Your task to perform on an android device: See recent photos Image 0: 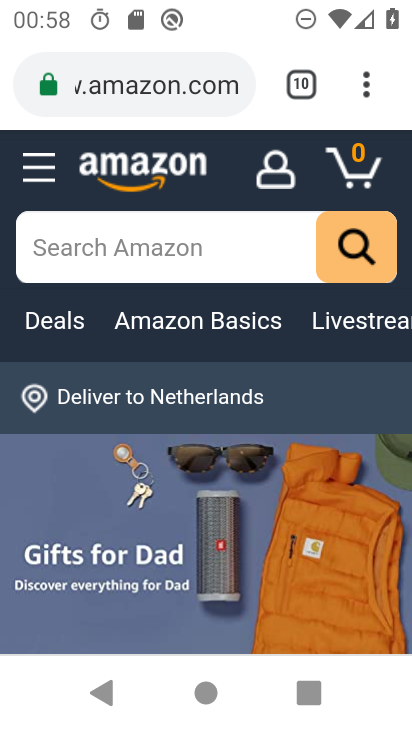
Step 0: press home button
Your task to perform on an android device: See recent photos Image 1: 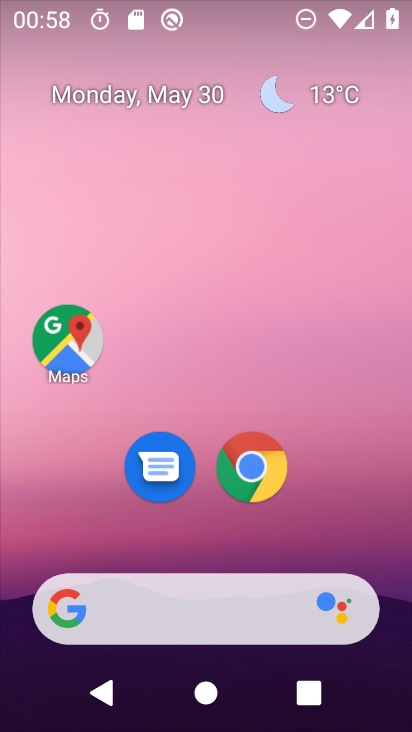
Step 1: drag from (207, 557) to (164, 235)
Your task to perform on an android device: See recent photos Image 2: 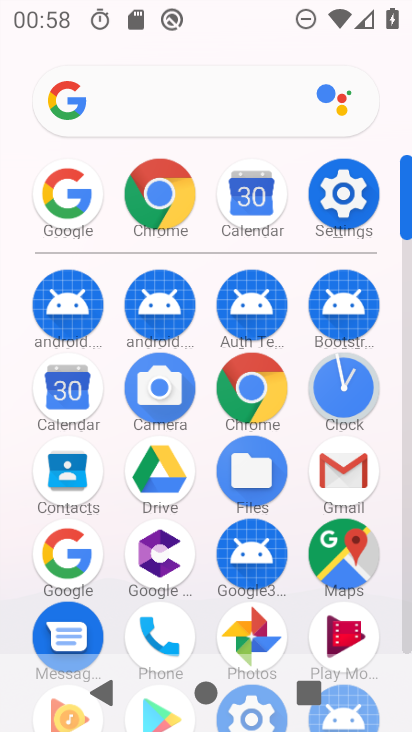
Step 2: click (234, 627)
Your task to perform on an android device: See recent photos Image 3: 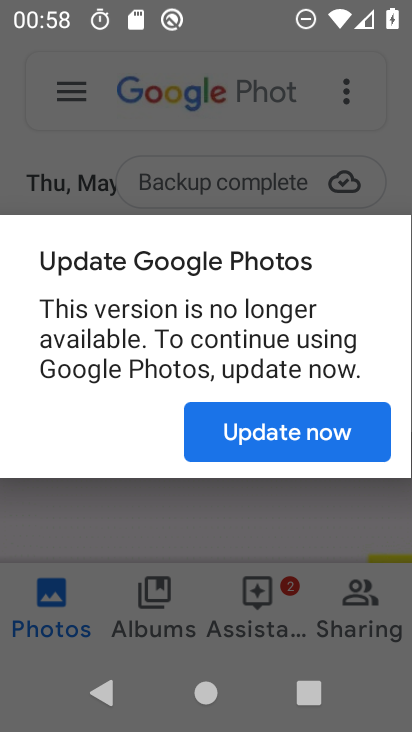
Step 3: click (263, 436)
Your task to perform on an android device: See recent photos Image 4: 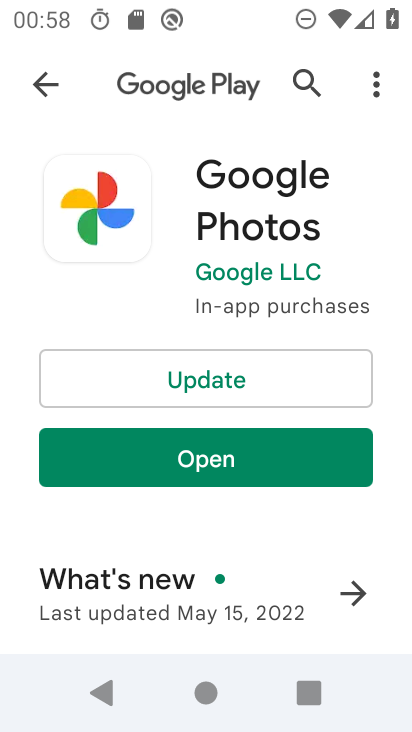
Step 4: click (206, 464)
Your task to perform on an android device: See recent photos Image 5: 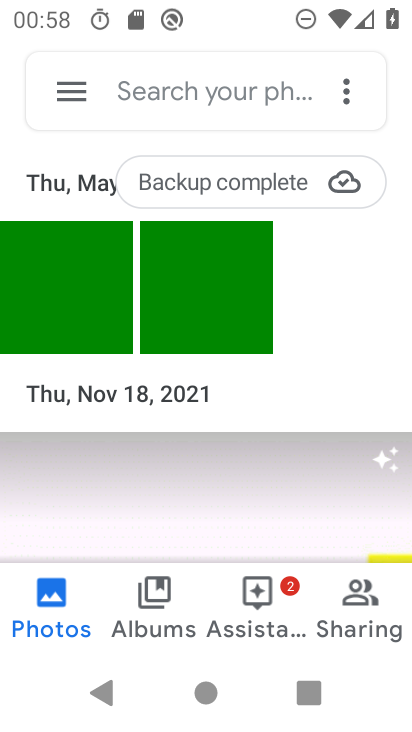
Step 5: task complete